Your task to perform on an android device: turn on airplane mode Image 0: 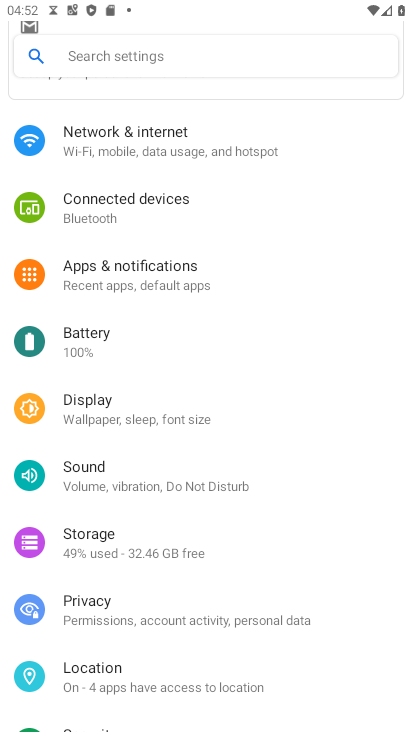
Step 0: click (206, 144)
Your task to perform on an android device: turn on airplane mode Image 1: 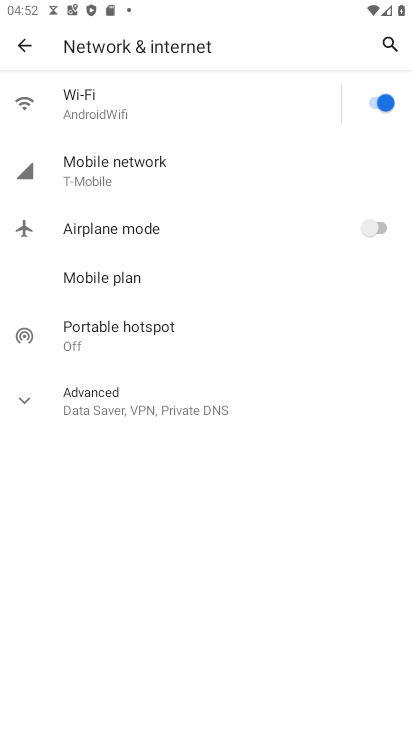
Step 1: click (380, 229)
Your task to perform on an android device: turn on airplane mode Image 2: 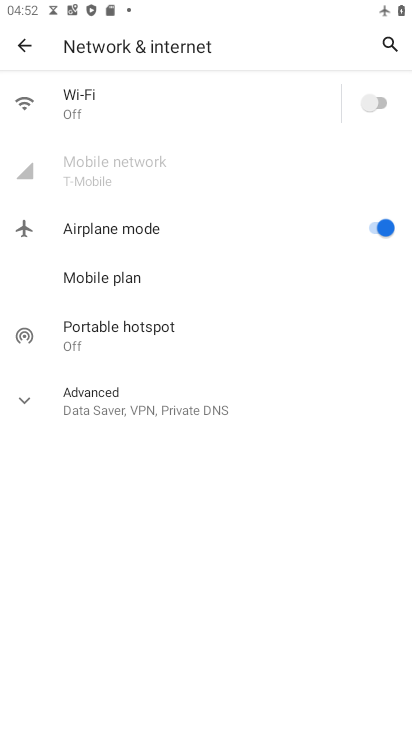
Step 2: task complete